Your task to perform on an android device: Open Google Maps and go to "Timeline" Image 0: 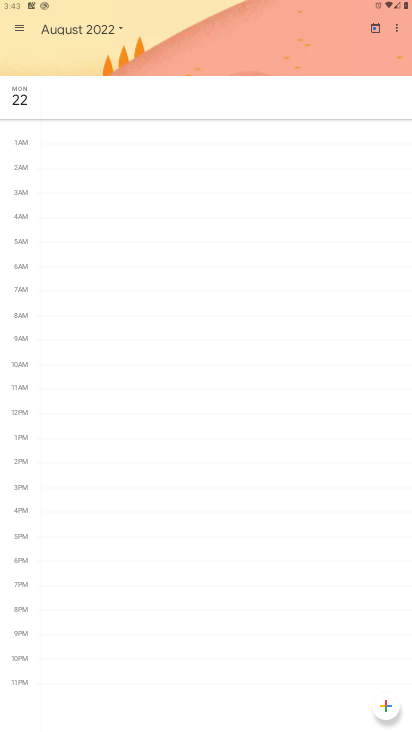
Step 0: press home button
Your task to perform on an android device: Open Google Maps and go to "Timeline" Image 1: 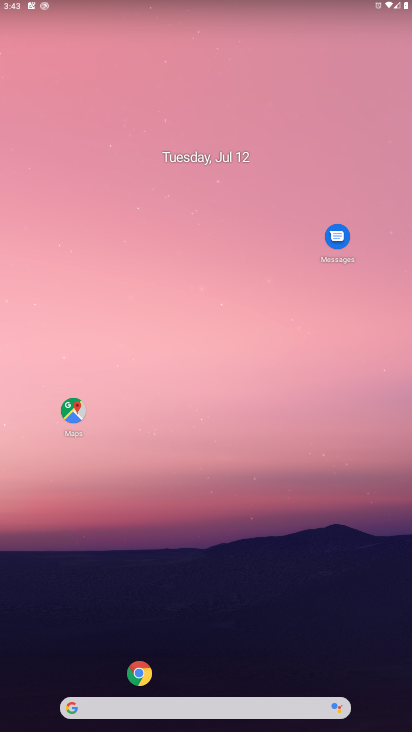
Step 1: click (74, 410)
Your task to perform on an android device: Open Google Maps and go to "Timeline" Image 2: 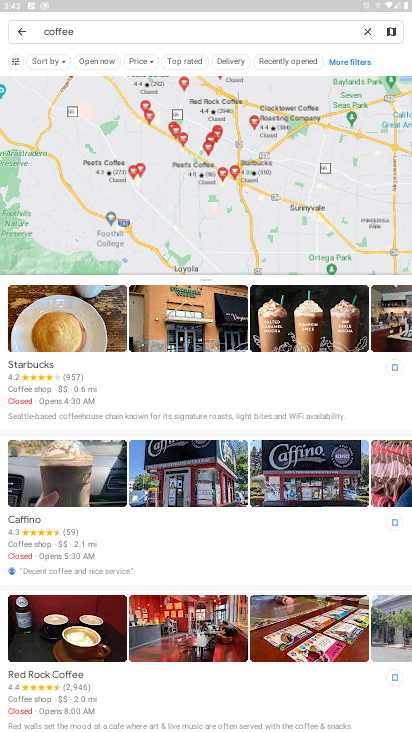
Step 2: click (20, 32)
Your task to perform on an android device: Open Google Maps and go to "Timeline" Image 3: 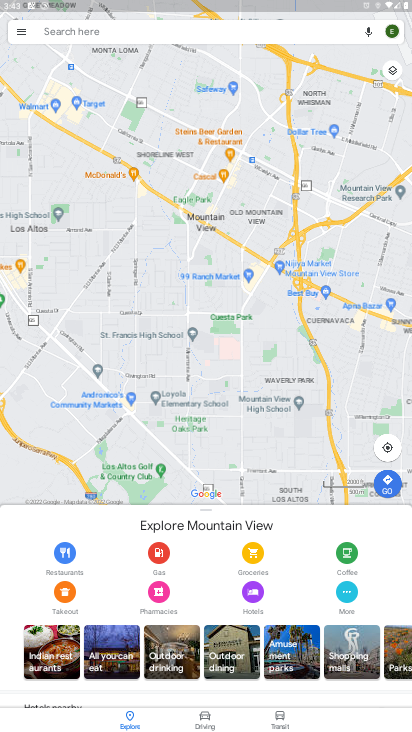
Step 3: click (22, 29)
Your task to perform on an android device: Open Google Maps and go to "Timeline" Image 4: 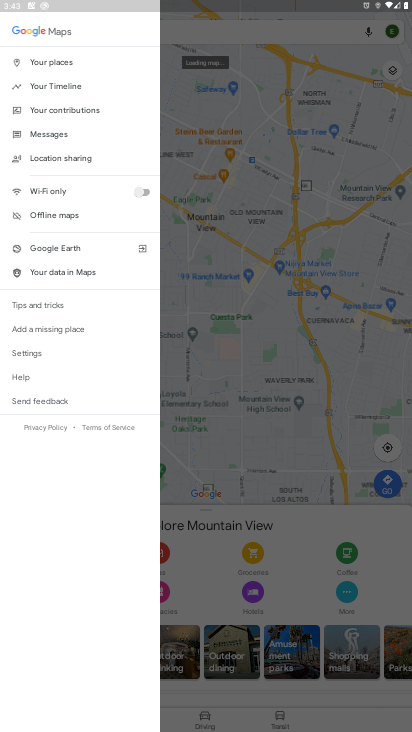
Step 4: click (34, 80)
Your task to perform on an android device: Open Google Maps and go to "Timeline" Image 5: 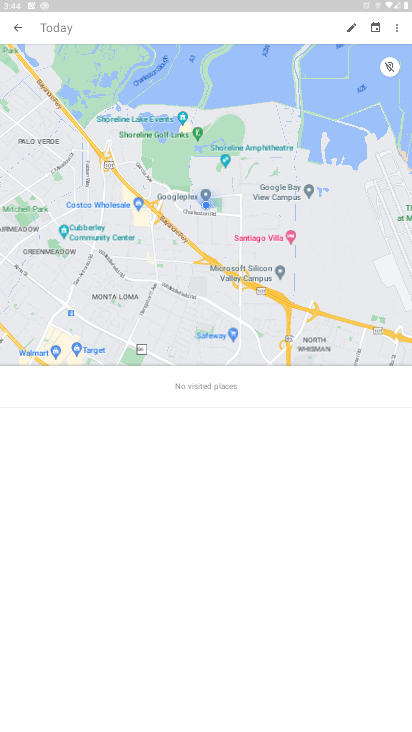
Step 5: task complete